Your task to perform on an android device: Open network settings Image 0: 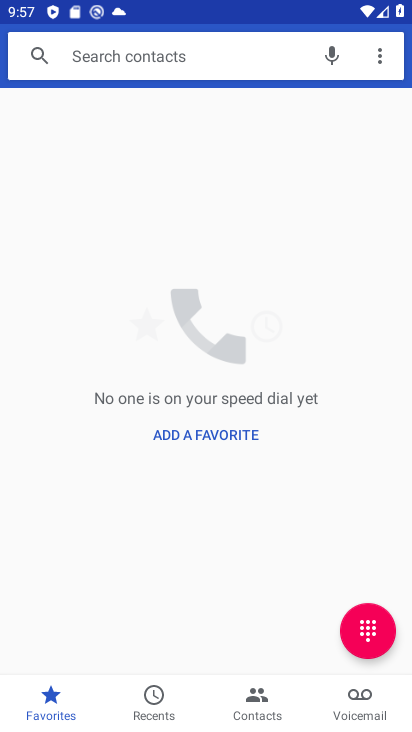
Step 0: drag from (287, 636) to (263, 303)
Your task to perform on an android device: Open network settings Image 1: 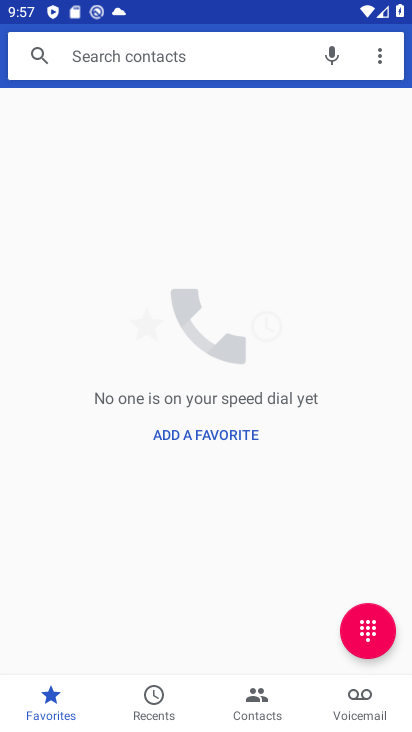
Step 1: press home button
Your task to perform on an android device: Open network settings Image 2: 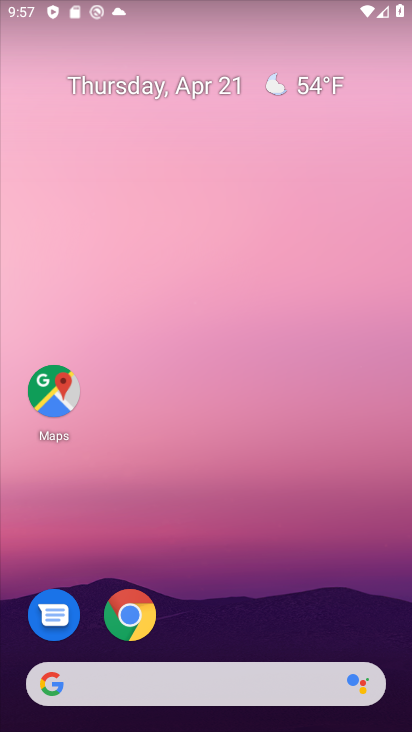
Step 2: drag from (274, 581) to (215, 17)
Your task to perform on an android device: Open network settings Image 3: 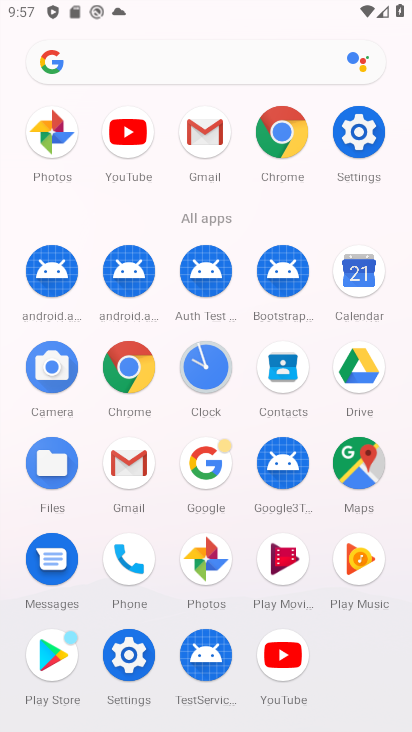
Step 3: click (139, 655)
Your task to perform on an android device: Open network settings Image 4: 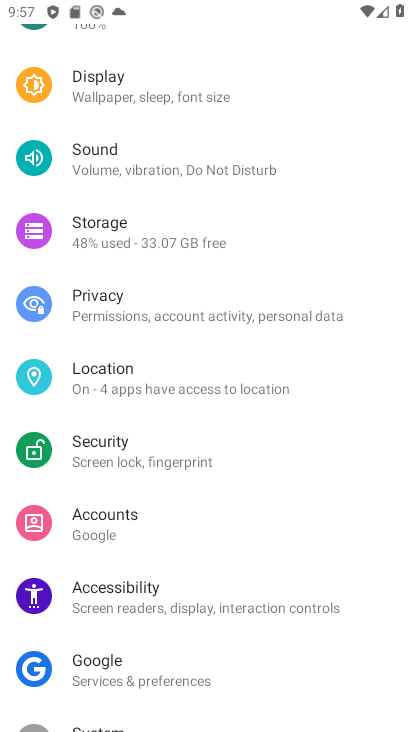
Step 4: drag from (142, 126) to (121, 540)
Your task to perform on an android device: Open network settings Image 5: 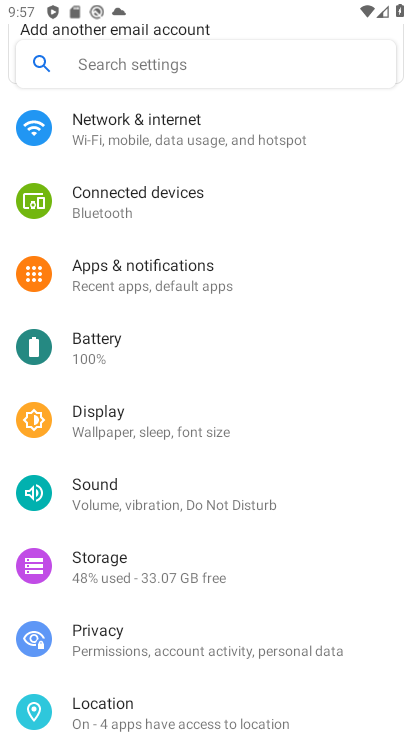
Step 5: click (162, 129)
Your task to perform on an android device: Open network settings Image 6: 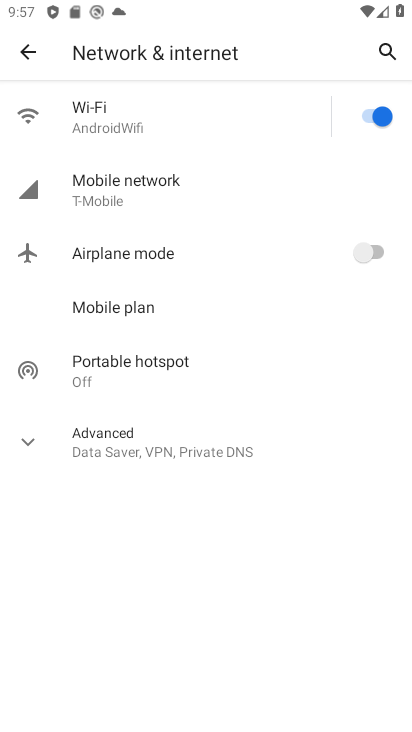
Step 6: task complete